Your task to perform on an android device: open a bookmark in the chrome app Image 0: 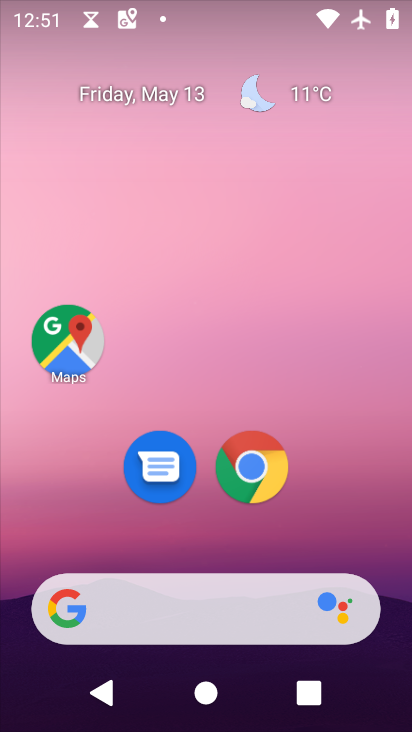
Step 0: click (260, 461)
Your task to perform on an android device: open a bookmark in the chrome app Image 1: 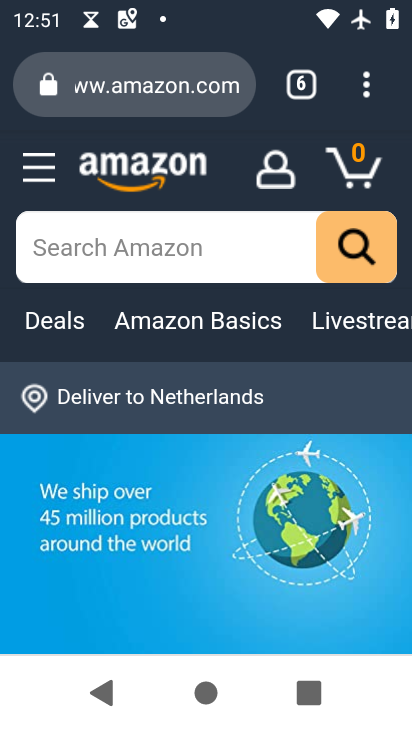
Step 1: click (365, 88)
Your task to perform on an android device: open a bookmark in the chrome app Image 2: 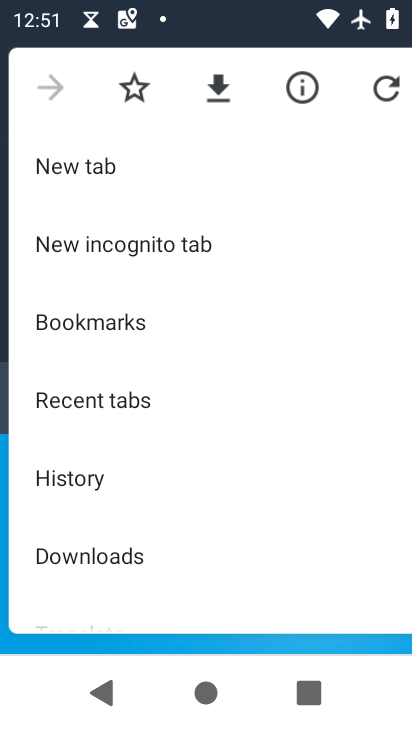
Step 2: click (138, 301)
Your task to perform on an android device: open a bookmark in the chrome app Image 3: 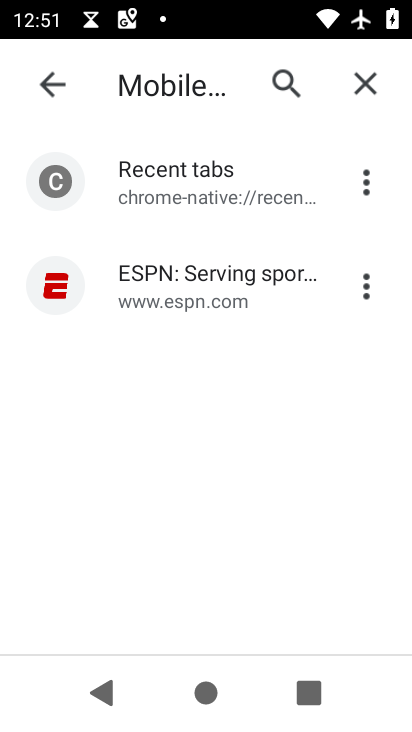
Step 3: click (207, 257)
Your task to perform on an android device: open a bookmark in the chrome app Image 4: 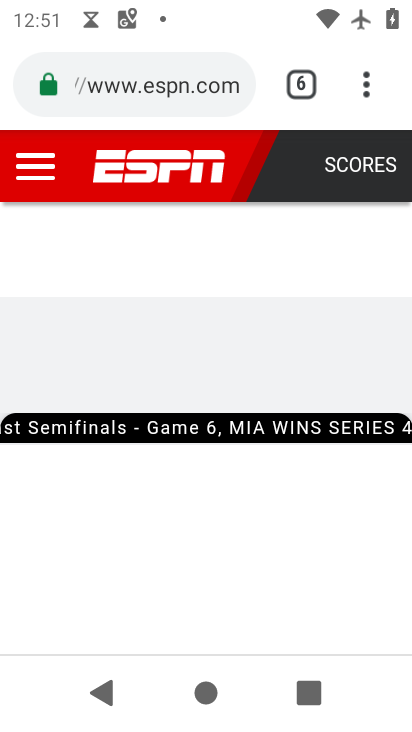
Step 4: task complete